Your task to perform on an android device: turn on notifications settings in the gmail app Image 0: 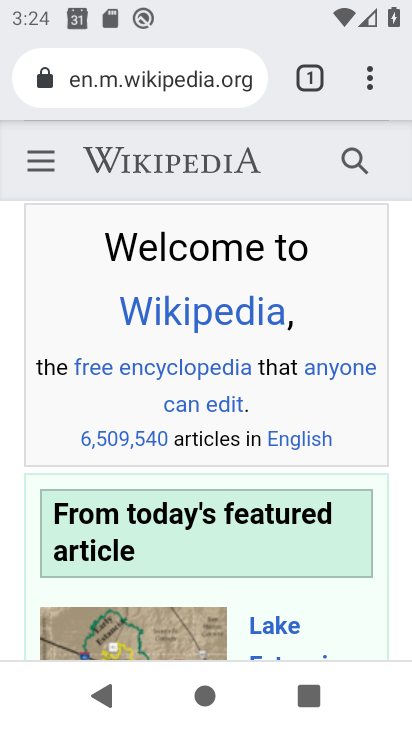
Step 0: press home button
Your task to perform on an android device: turn on notifications settings in the gmail app Image 1: 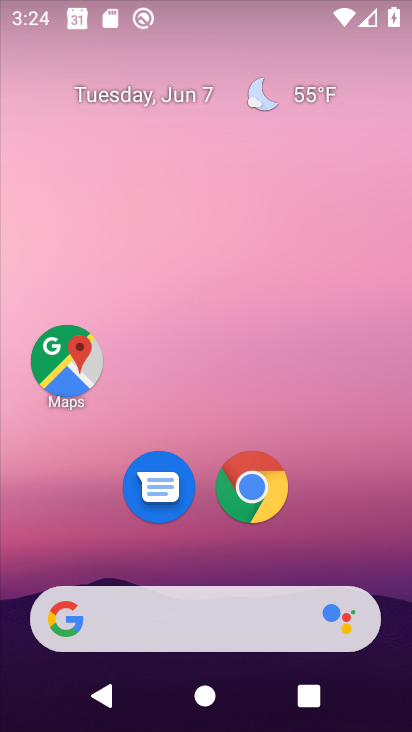
Step 1: drag from (226, 450) to (178, 57)
Your task to perform on an android device: turn on notifications settings in the gmail app Image 2: 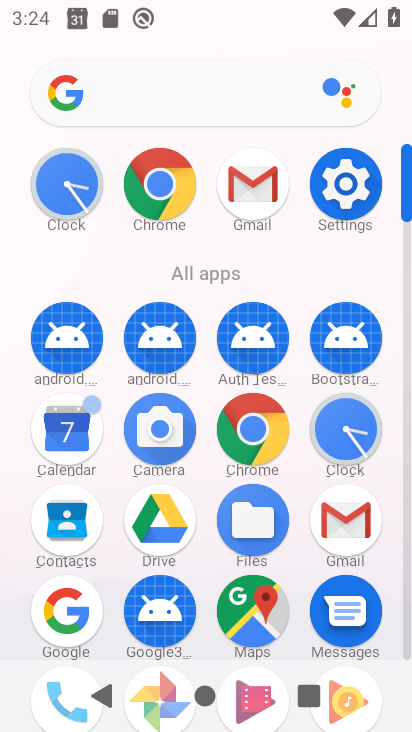
Step 2: click (243, 197)
Your task to perform on an android device: turn on notifications settings in the gmail app Image 3: 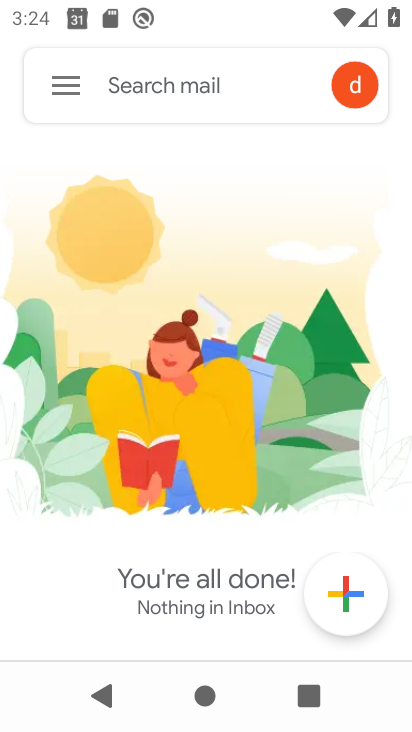
Step 3: click (61, 100)
Your task to perform on an android device: turn on notifications settings in the gmail app Image 4: 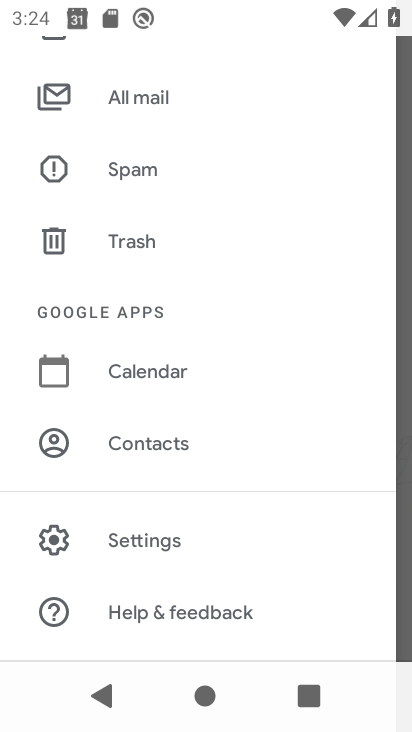
Step 4: click (161, 538)
Your task to perform on an android device: turn on notifications settings in the gmail app Image 5: 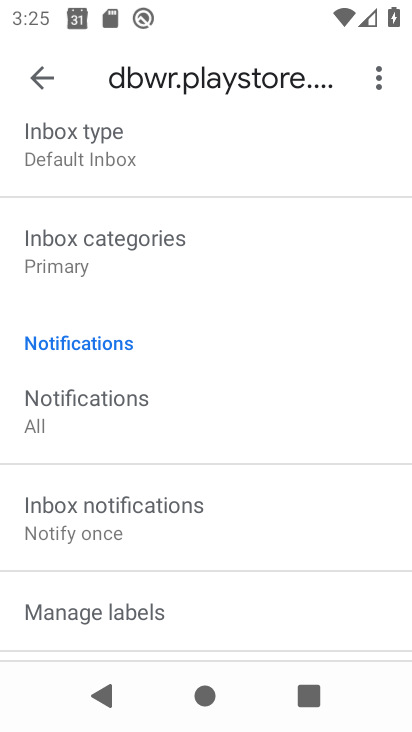
Step 5: click (97, 421)
Your task to perform on an android device: turn on notifications settings in the gmail app Image 6: 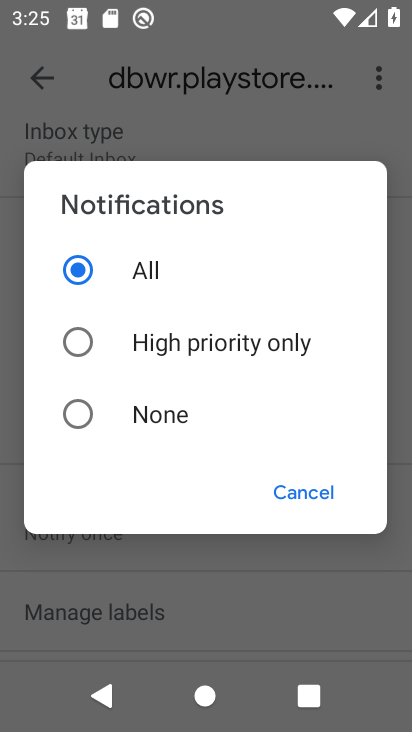
Step 6: task complete